Your task to perform on an android device: set default search engine in the chrome app Image 0: 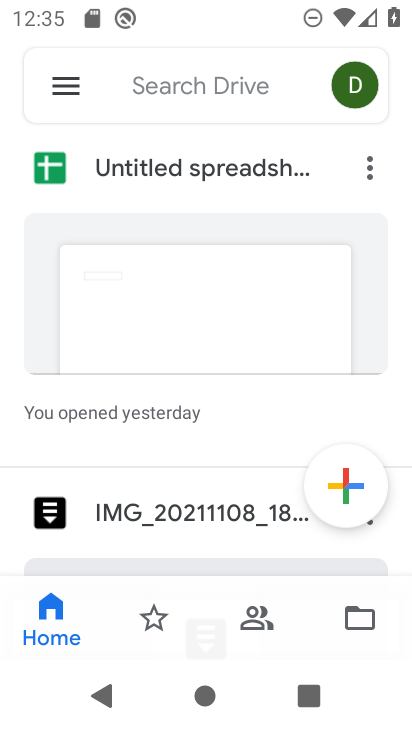
Step 0: press home button
Your task to perform on an android device: set default search engine in the chrome app Image 1: 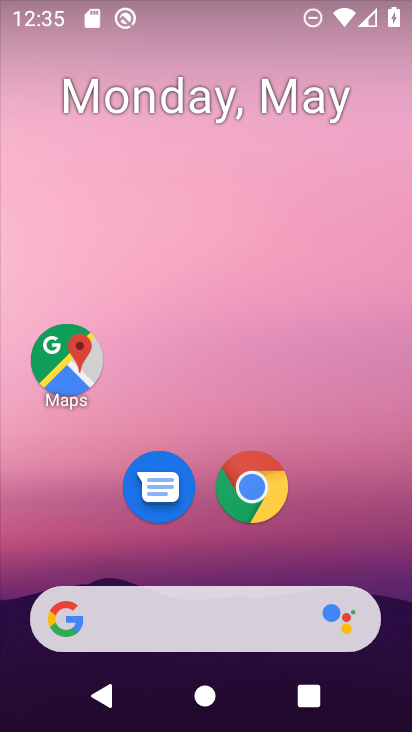
Step 1: click (251, 485)
Your task to perform on an android device: set default search engine in the chrome app Image 2: 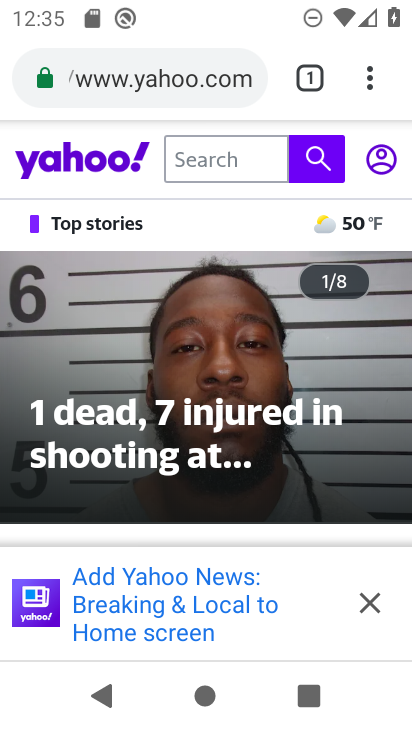
Step 2: click (370, 79)
Your task to perform on an android device: set default search engine in the chrome app Image 3: 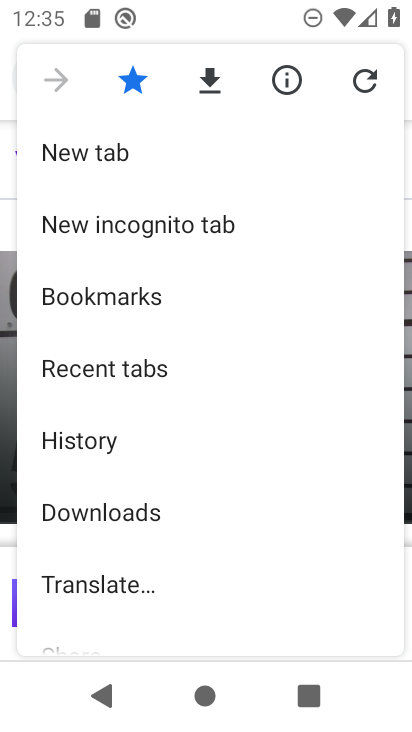
Step 3: drag from (178, 409) to (204, 351)
Your task to perform on an android device: set default search engine in the chrome app Image 4: 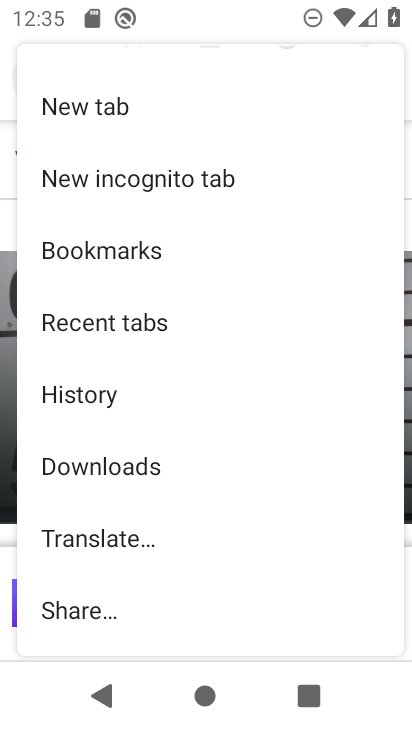
Step 4: drag from (112, 593) to (282, 148)
Your task to perform on an android device: set default search engine in the chrome app Image 5: 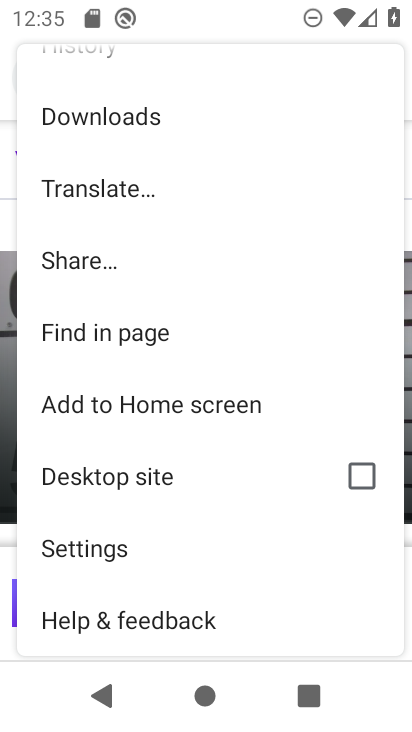
Step 5: click (106, 553)
Your task to perform on an android device: set default search engine in the chrome app Image 6: 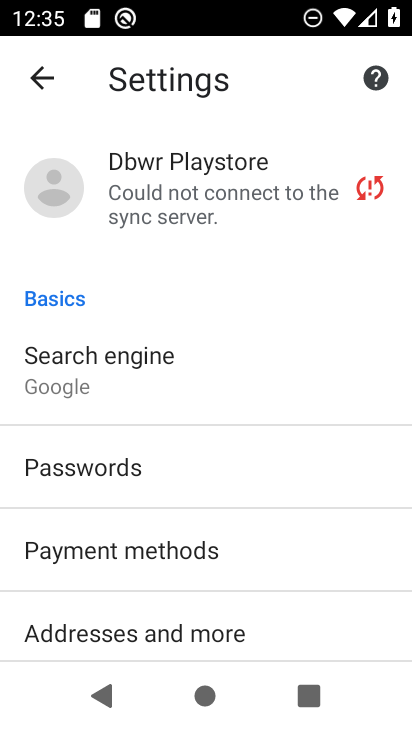
Step 6: click (162, 399)
Your task to perform on an android device: set default search engine in the chrome app Image 7: 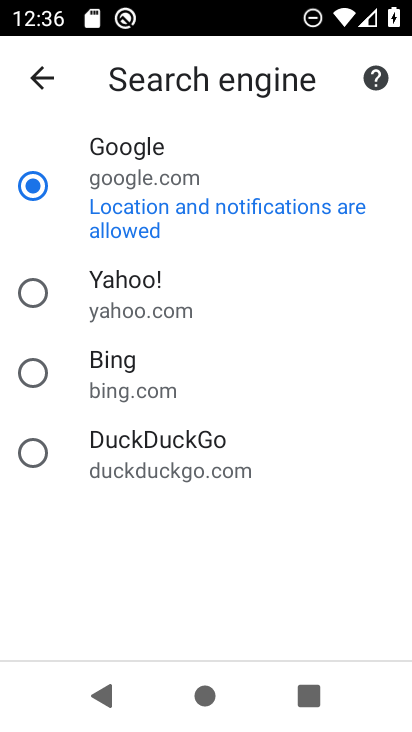
Step 7: click (40, 184)
Your task to perform on an android device: set default search engine in the chrome app Image 8: 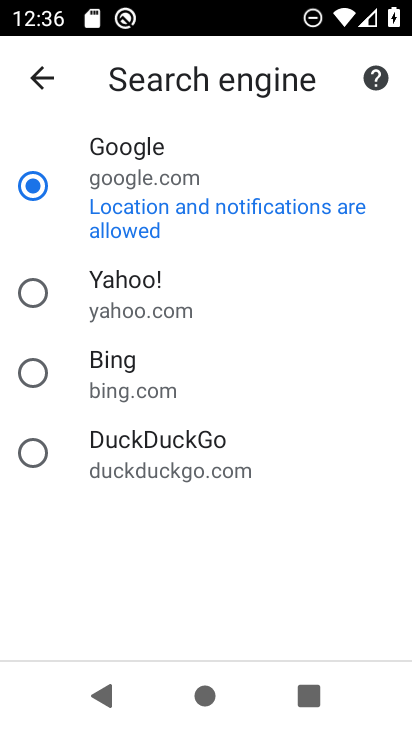
Step 8: task complete